Your task to perform on an android device: Empty the shopping cart on bestbuy. Image 0: 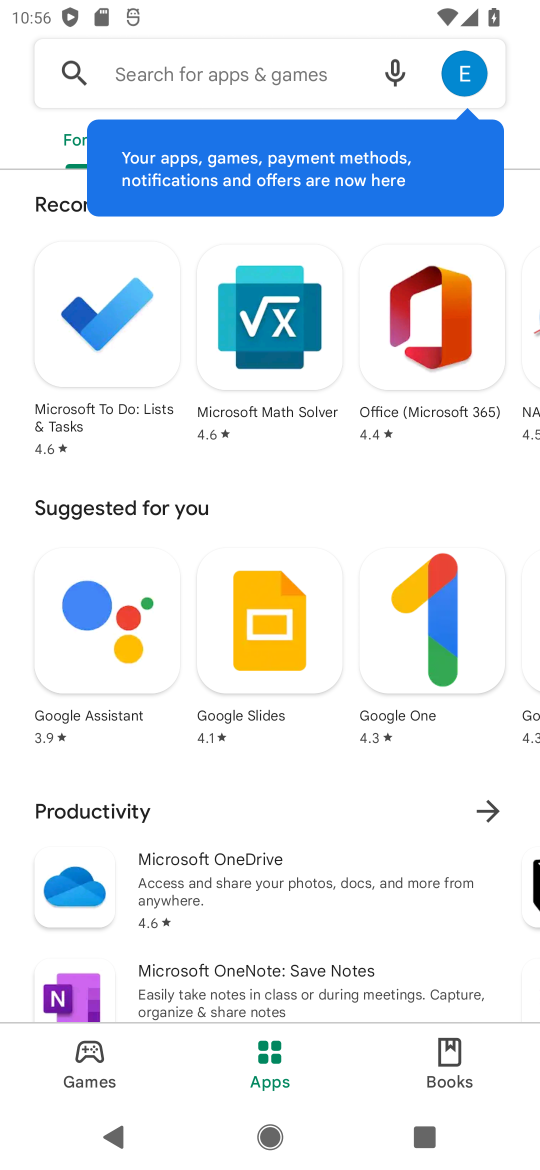
Step 0: press home button
Your task to perform on an android device: Empty the shopping cart on bestbuy. Image 1: 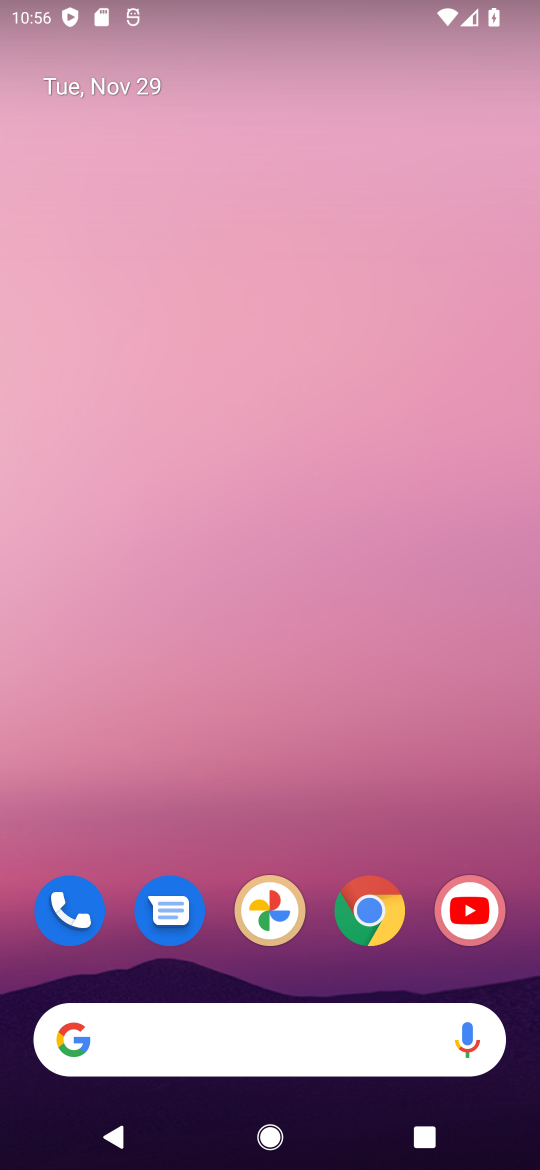
Step 1: click (376, 915)
Your task to perform on an android device: Empty the shopping cart on bestbuy. Image 2: 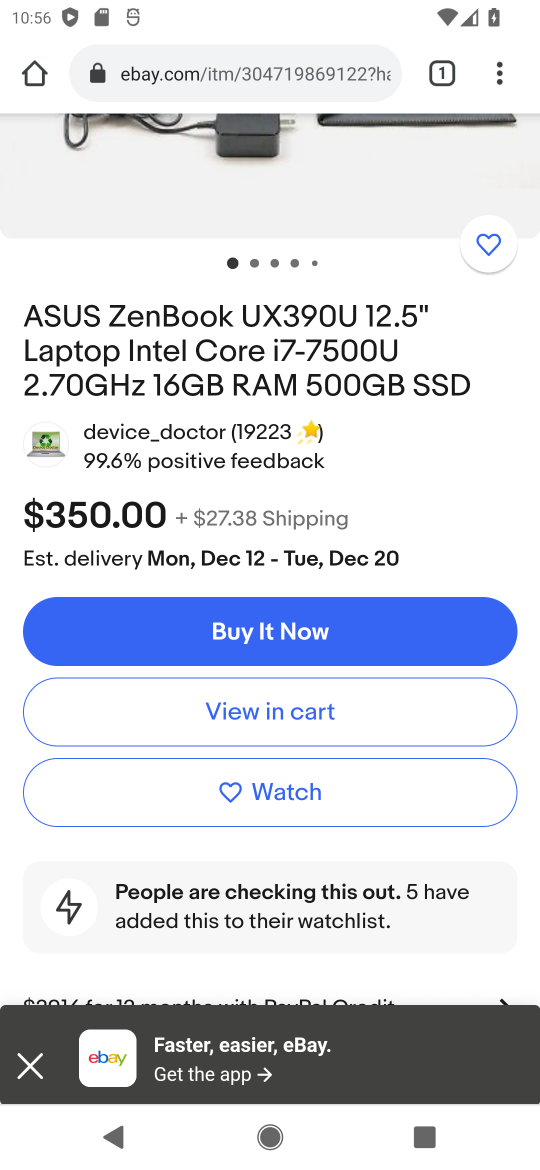
Step 2: click (234, 71)
Your task to perform on an android device: Empty the shopping cart on bestbuy. Image 3: 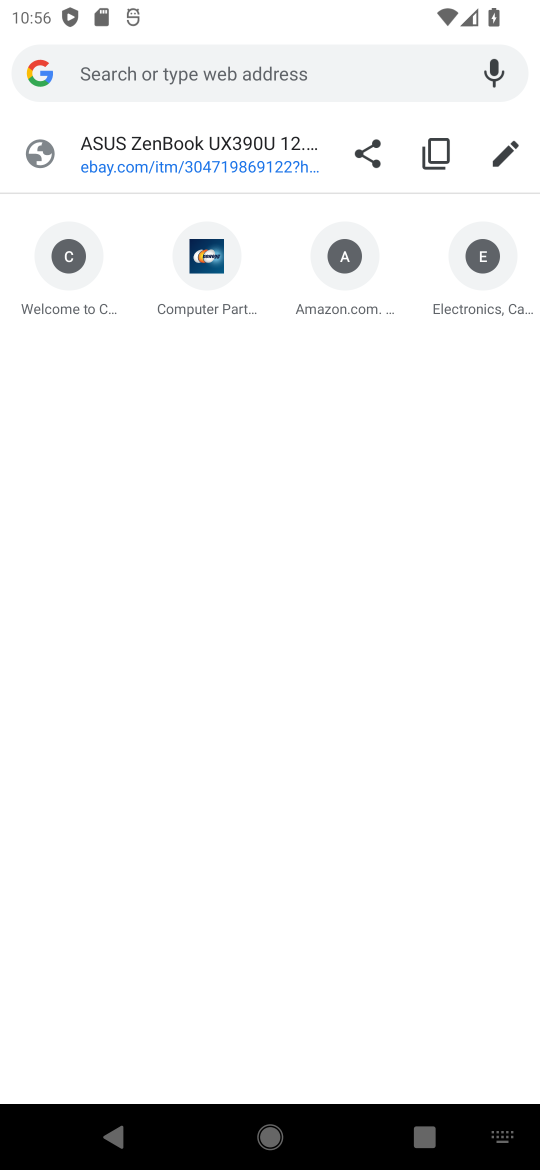
Step 3: type "bestbuy.com"
Your task to perform on an android device: Empty the shopping cart on bestbuy. Image 4: 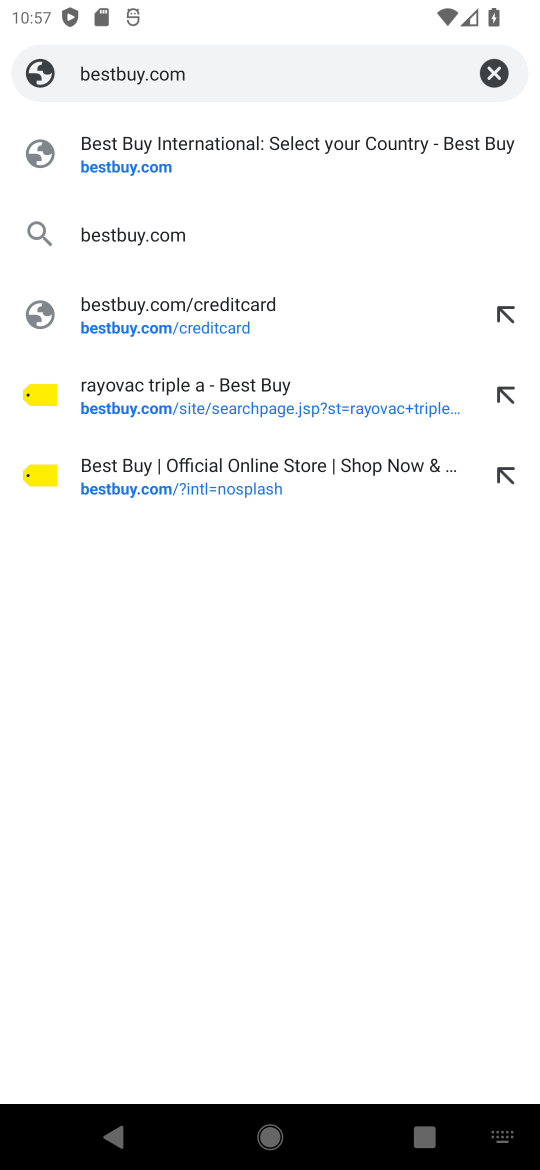
Step 4: click (98, 169)
Your task to perform on an android device: Empty the shopping cart on bestbuy. Image 5: 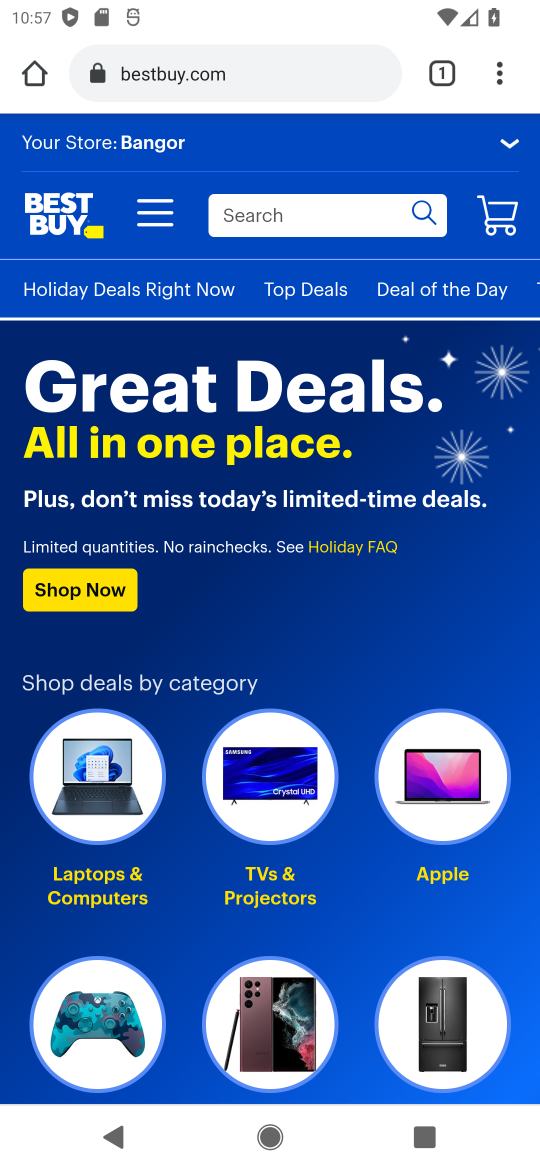
Step 5: click (505, 215)
Your task to perform on an android device: Empty the shopping cart on bestbuy. Image 6: 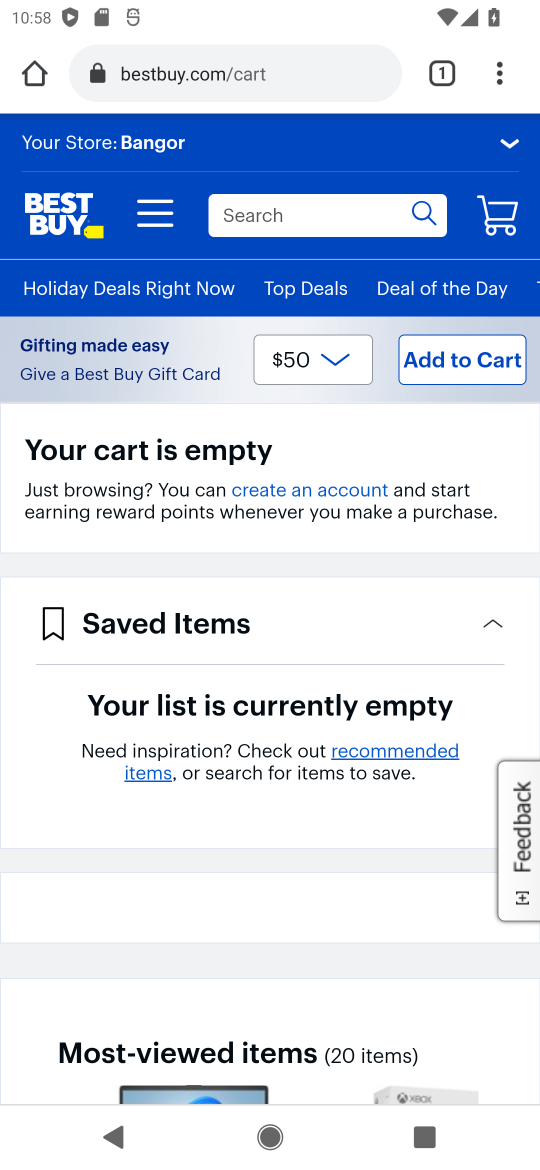
Step 6: task complete